Your task to perform on an android device: find snoozed emails in the gmail app Image 0: 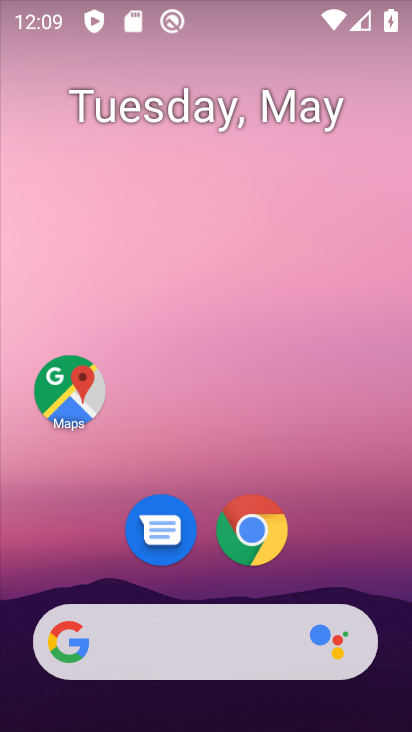
Step 0: drag from (320, 521) to (256, 9)
Your task to perform on an android device: find snoozed emails in the gmail app Image 1: 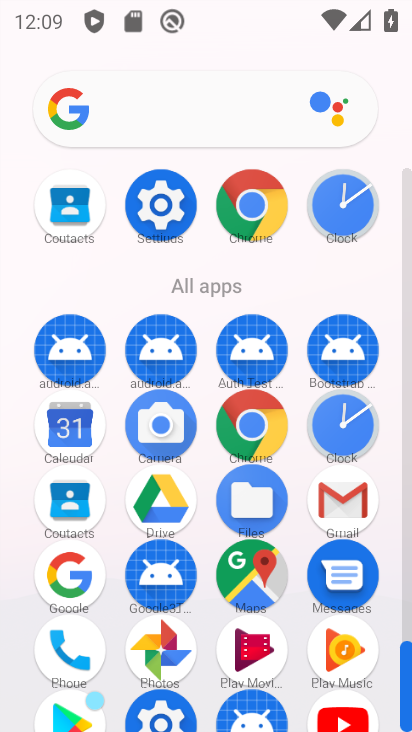
Step 1: drag from (12, 610) to (36, 261)
Your task to perform on an android device: find snoozed emails in the gmail app Image 2: 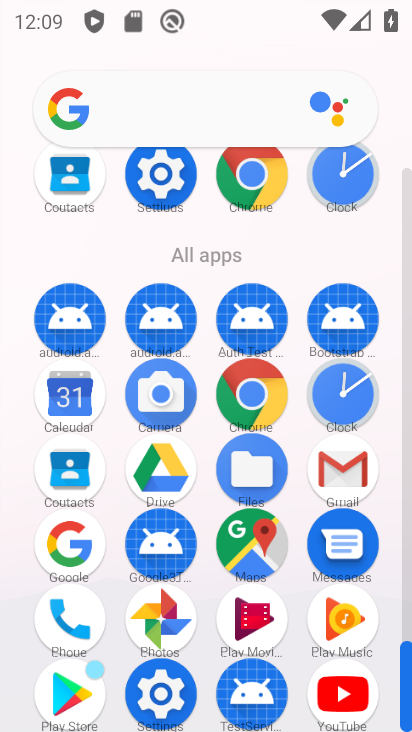
Step 2: click (333, 458)
Your task to perform on an android device: find snoozed emails in the gmail app Image 3: 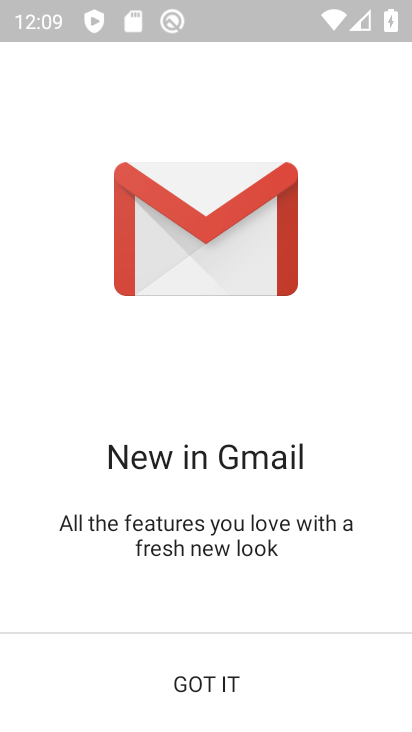
Step 3: click (252, 638)
Your task to perform on an android device: find snoozed emails in the gmail app Image 4: 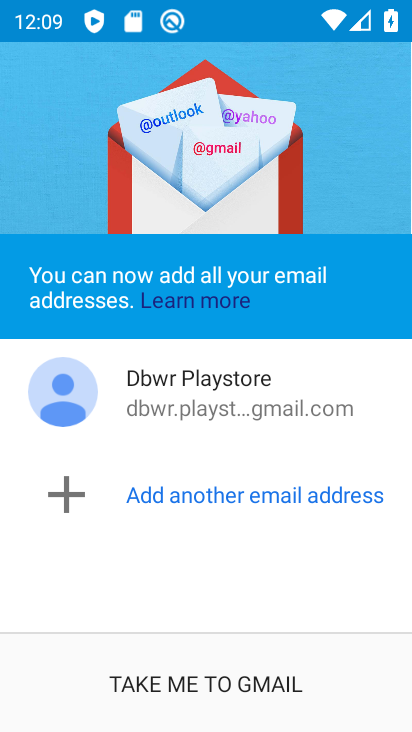
Step 4: click (228, 698)
Your task to perform on an android device: find snoozed emails in the gmail app Image 5: 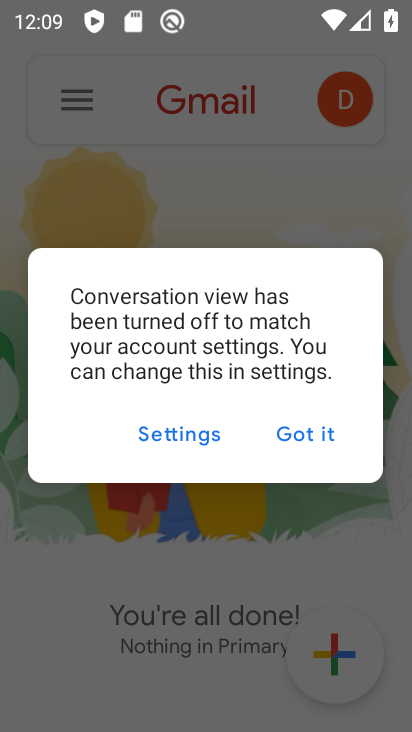
Step 5: click (305, 424)
Your task to perform on an android device: find snoozed emails in the gmail app Image 6: 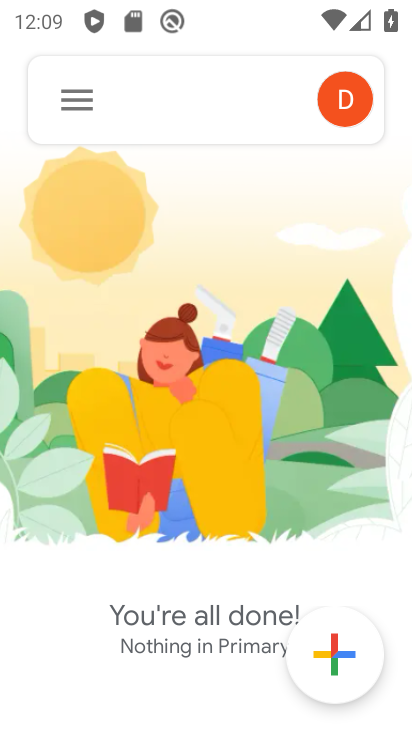
Step 6: click (71, 86)
Your task to perform on an android device: find snoozed emails in the gmail app Image 7: 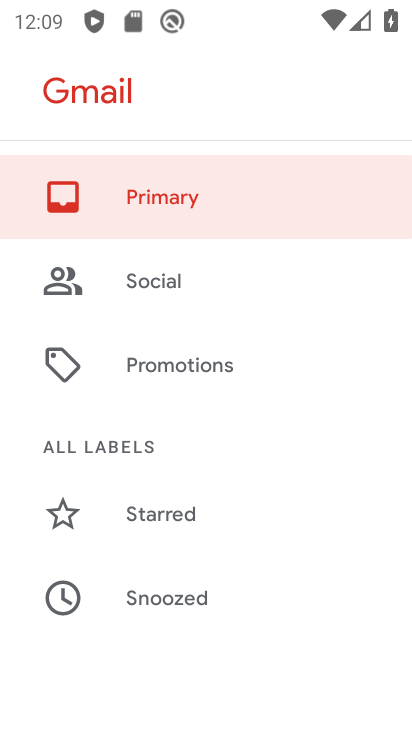
Step 7: drag from (266, 593) to (245, 303)
Your task to perform on an android device: find snoozed emails in the gmail app Image 8: 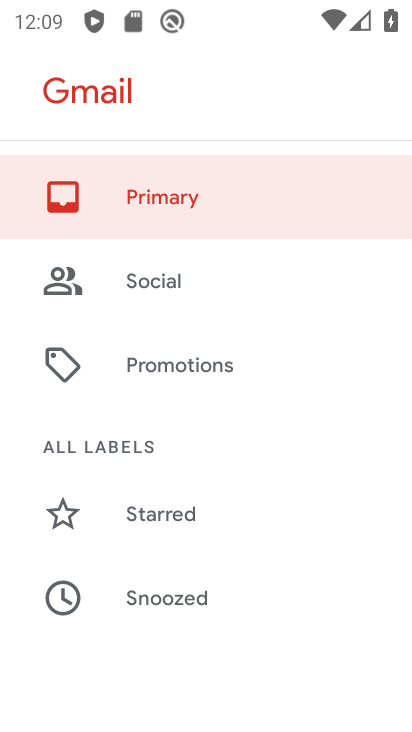
Step 8: click (164, 595)
Your task to perform on an android device: find snoozed emails in the gmail app Image 9: 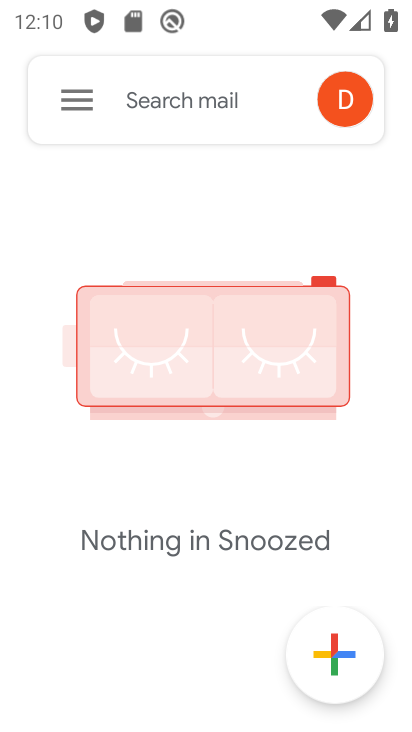
Step 9: task complete